Your task to perform on an android device: Do I have any events tomorrow? Image 0: 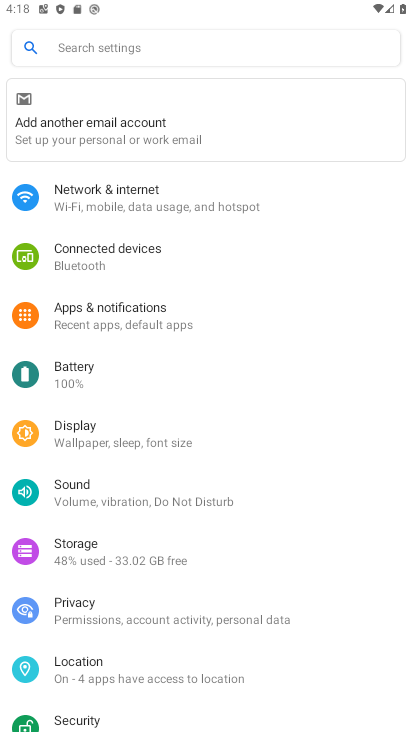
Step 0: press home button
Your task to perform on an android device: Do I have any events tomorrow? Image 1: 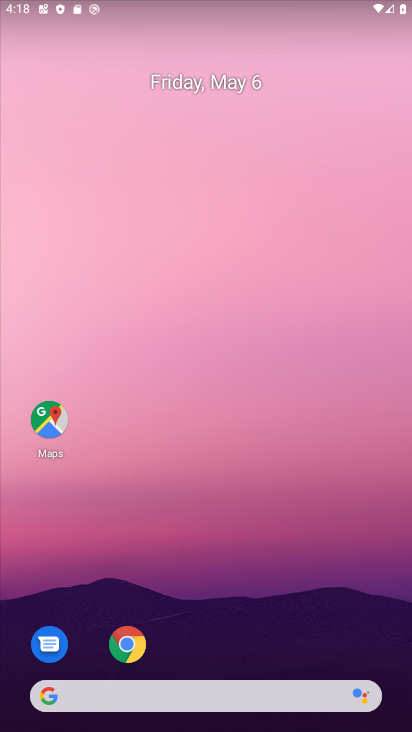
Step 1: drag from (249, 604) to (6, 188)
Your task to perform on an android device: Do I have any events tomorrow? Image 2: 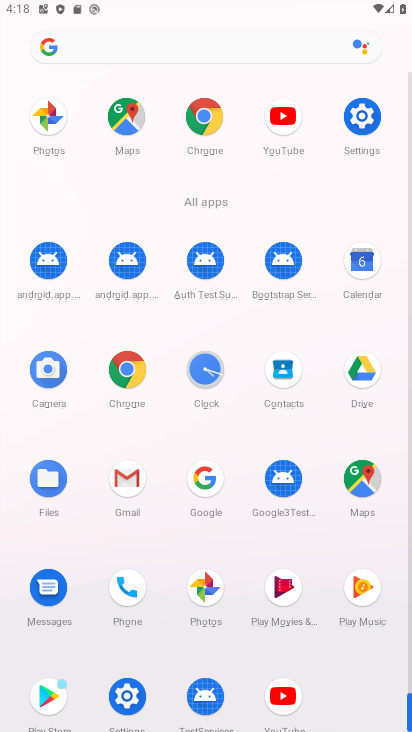
Step 2: click (366, 260)
Your task to perform on an android device: Do I have any events tomorrow? Image 3: 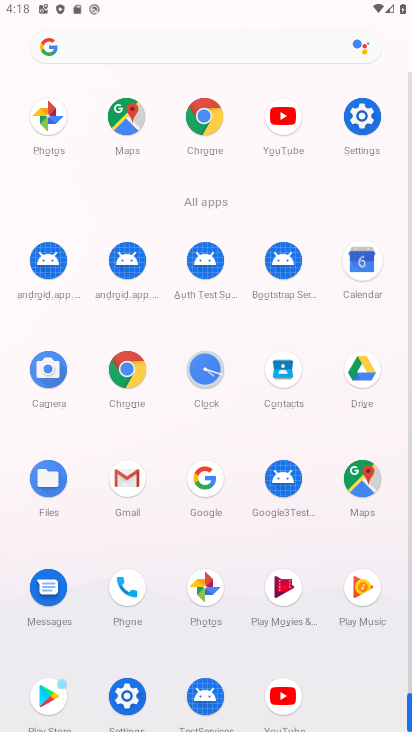
Step 3: click (359, 262)
Your task to perform on an android device: Do I have any events tomorrow? Image 4: 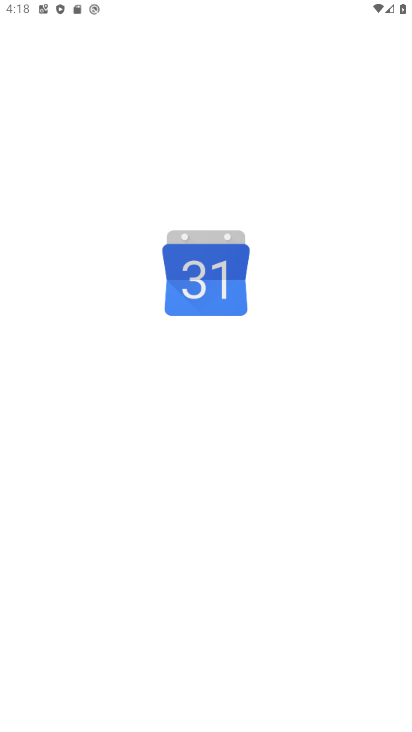
Step 4: click (358, 263)
Your task to perform on an android device: Do I have any events tomorrow? Image 5: 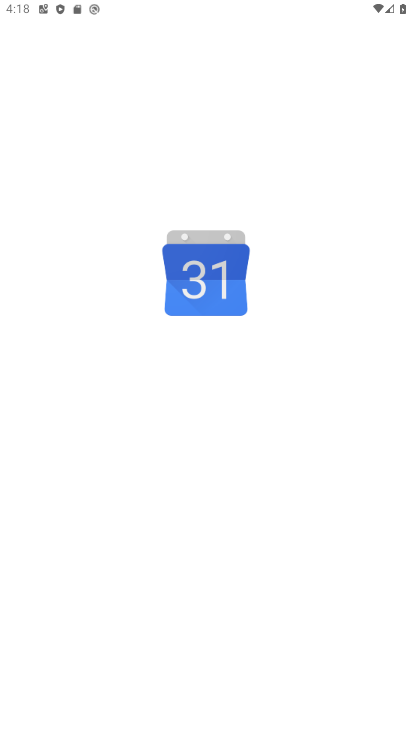
Step 5: click (358, 263)
Your task to perform on an android device: Do I have any events tomorrow? Image 6: 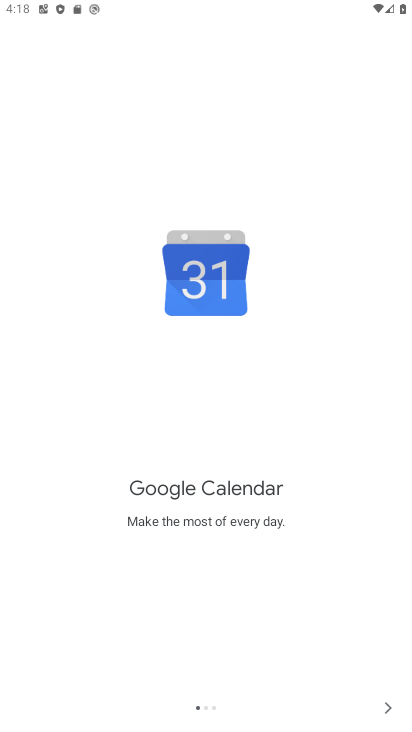
Step 6: click (392, 709)
Your task to perform on an android device: Do I have any events tomorrow? Image 7: 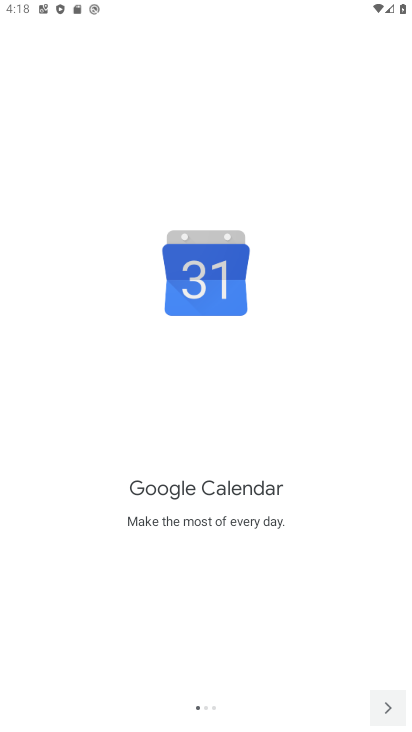
Step 7: click (390, 710)
Your task to perform on an android device: Do I have any events tomorrow? Image 8: 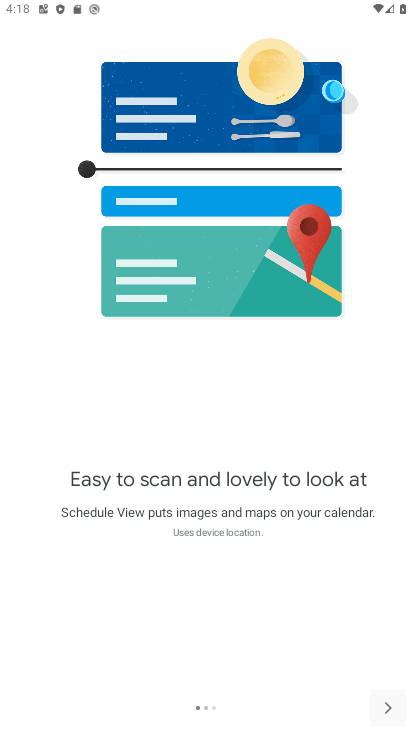
Step 8: click (389, 711)
Your task to perform on an android device: Do I have any events tomorrow? Image 9: 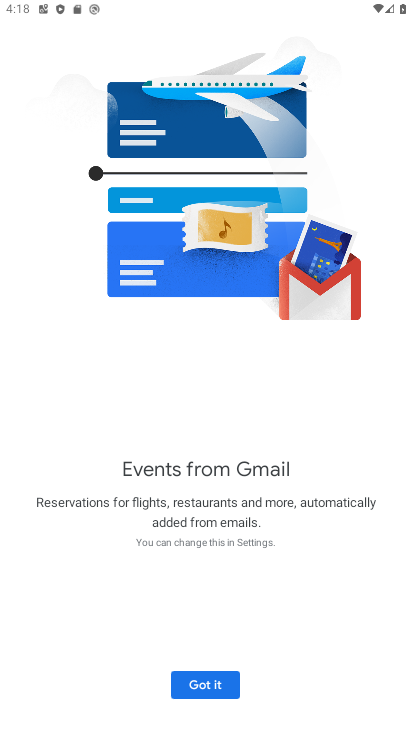
Step 9: click (190, 676)
Your task to perform on an android device: Do I have any events tomorrow? Image 10: 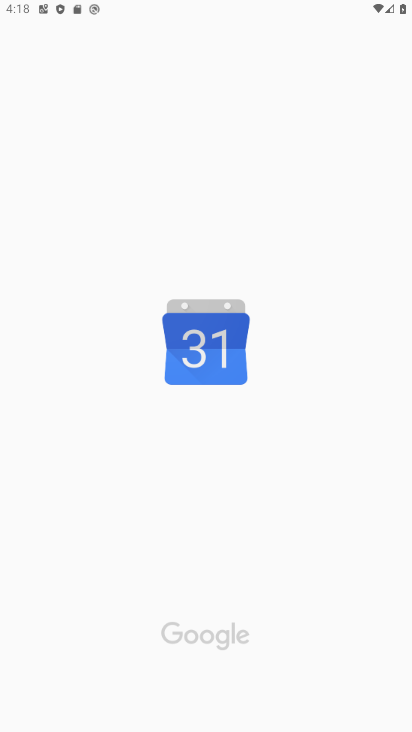
Step 10: click (219, 680)
Your task to perform on an android device: Do I have any events tomorrow? Image 11: 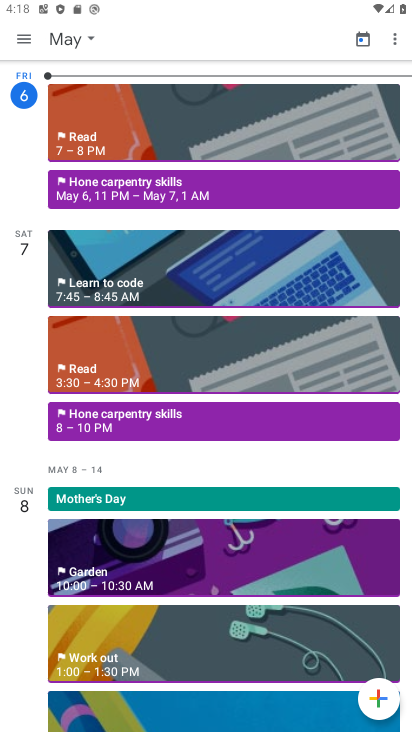
Step 11: task complete